Your task to perform on an android device: toggle data saver in the chrome app Image 0: 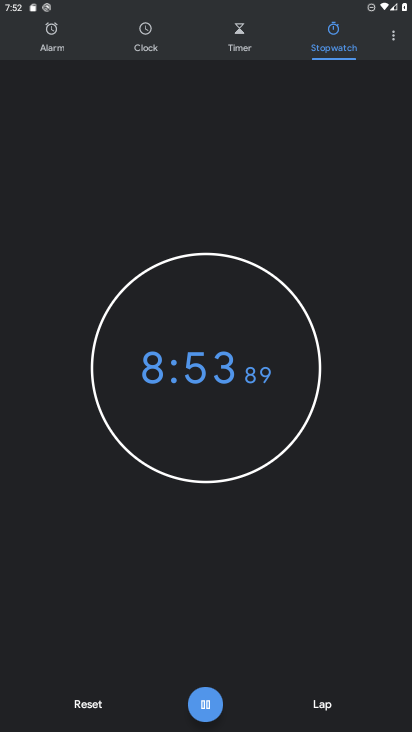
Step 0: press home button
Your task to perform on an android device: toggle data saver in the chrome app Image 1: 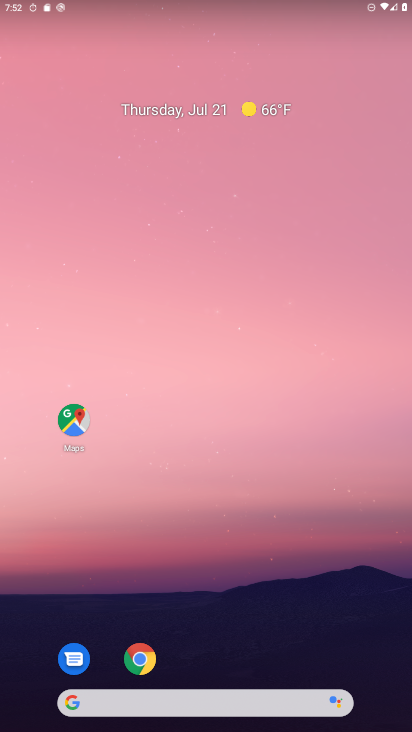
Step 1: drag from (225, 621) to (389, 138)
Your task to perform on an android device: toggle data saver in the chrome app Image 2: 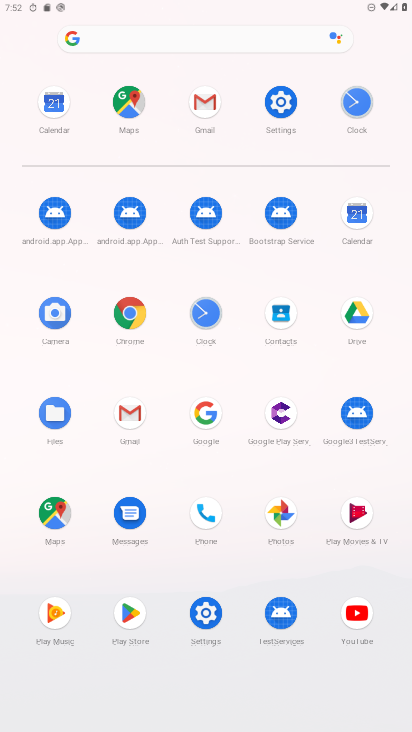
Step 2: click (121, 311)
Your task to perform on an android device: toggle data saver in the chrome app Image 3: 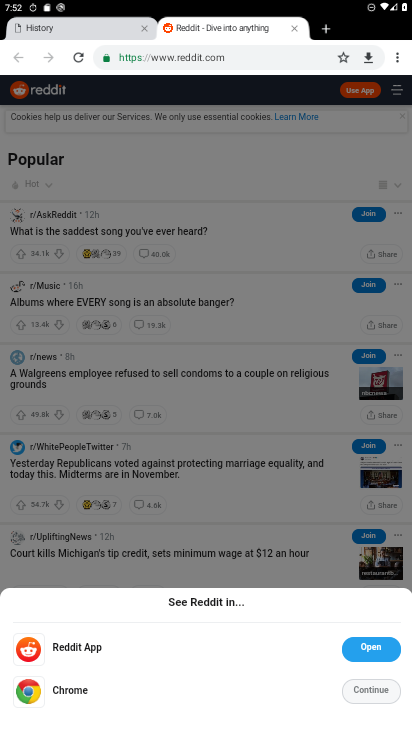
Step 3: drag from (396, 47) to (310, 378)
Your task to perform on an android device: toggle data saver in the chrome app Image 4: 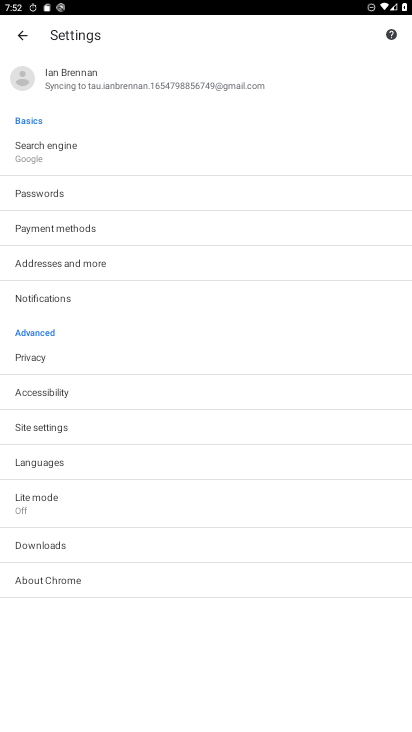
Step 4: click (90, 499)
Your task to perform on an android device: toggle data saver in the chrome app Image 5: 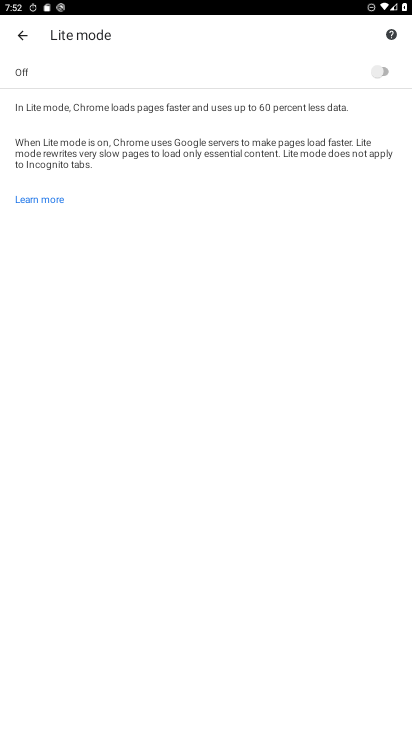
Step 5: click (310, 76)
Your task to perform on an android device: toggle data saver in the chrome app Image 6: 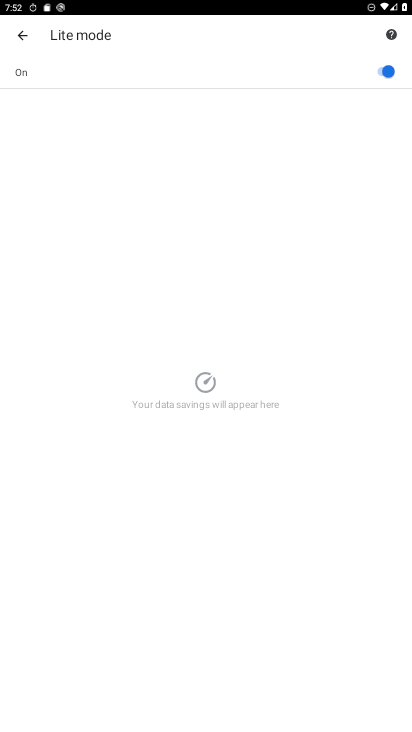
Step 6: task complete